Your task to perform on an android device: Do I have any events tomorrow? Image 0: 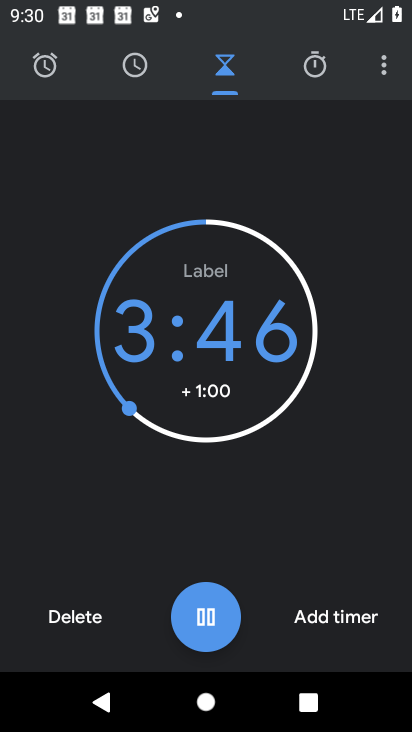
Step 0: press home button
Your task to perform on an android device: Do I have any events tomorrow? Image 1: 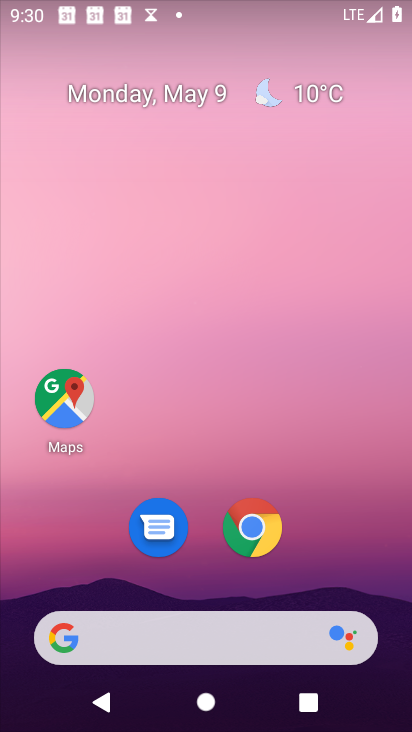
Step 1: drag from (214, 576) to (323, 8)
Your task to perform on an android device: Do I have any events tomorrow? Image 2: 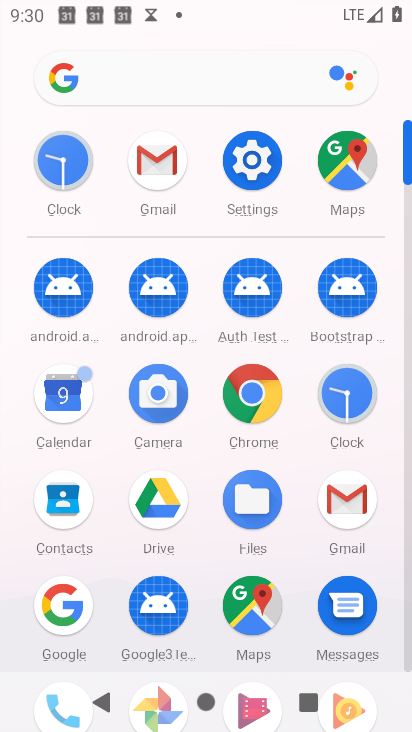
Step 2: click (71, 395)
Your task to perform on an android device: Do I have any events tomorrow? Image 3: 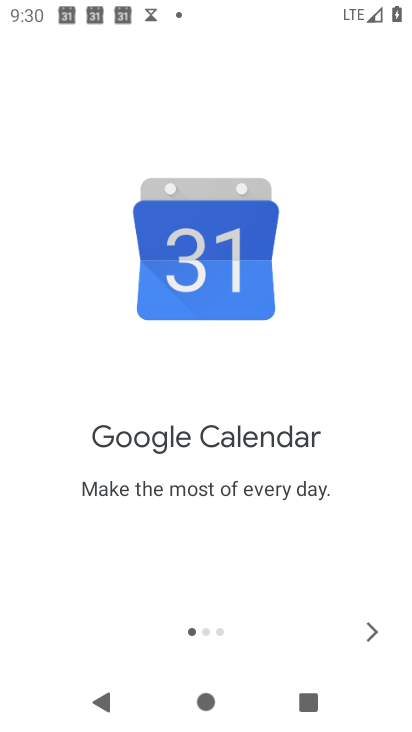
Step 3: click (364, 645)
Your task to perform on an android device: Do I have any events tomorrow? Image 4: 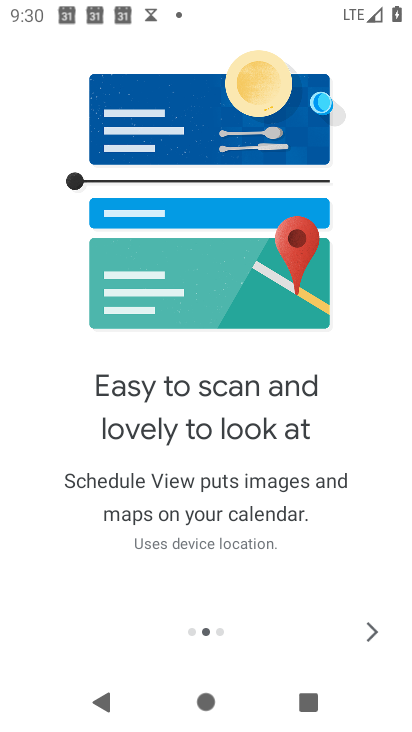
Step 4: click (364, 645)
Your task to perform on an android device: Do I have any events tomorrow? Image 5: 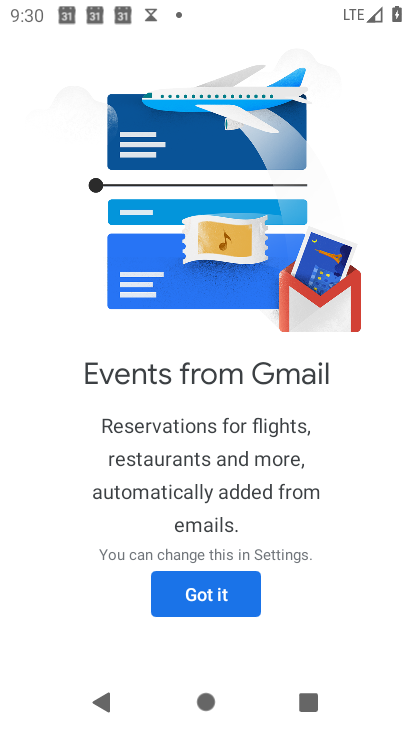
Step 5: click (179, 574)
Your task to perform on an android device: Do I have any events tomorrow? Image 6: 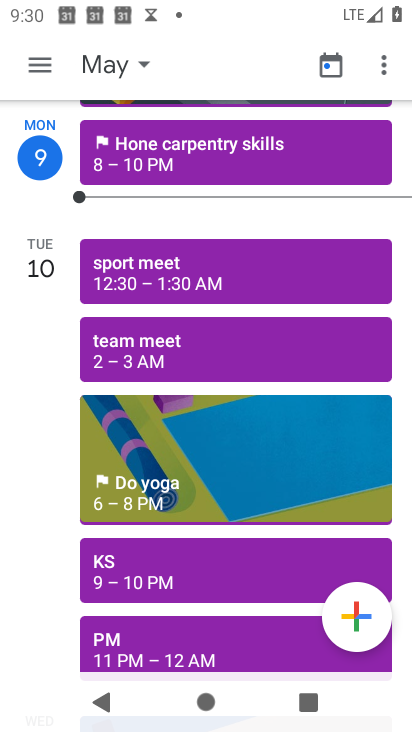
Step 6: click (42, 71)
Your task to perform on an android device: Do I have any events tomorrow? Image 7: 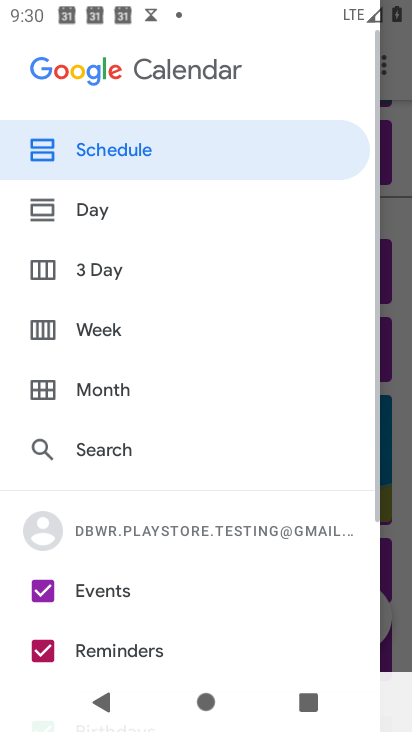
Step 7: click (106, 273)
Your task to perform on an android device: Do I have any events tomorrow? Image 8: 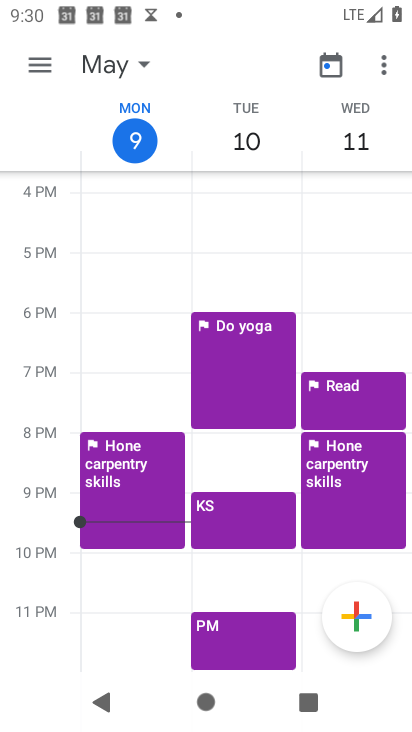
Step 8: click (39, 74)
Your task to perform on an android device: Do I have any events tomorrow? Image 9: 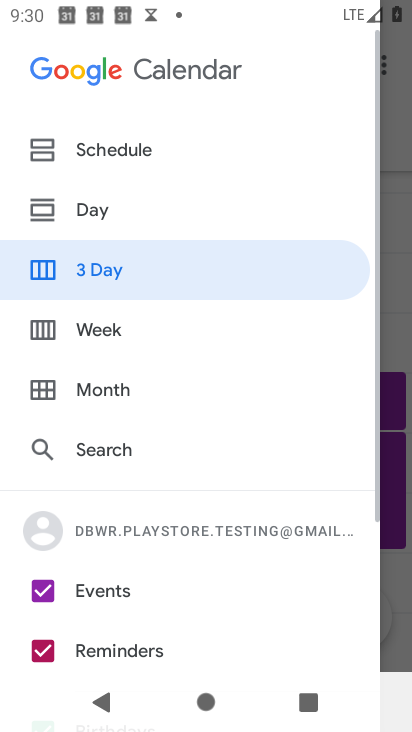
Step 9: drag from (99, 607) to (162, 255)
Your task to perform on an android device: Do I have any events tomorrow? Image 10: 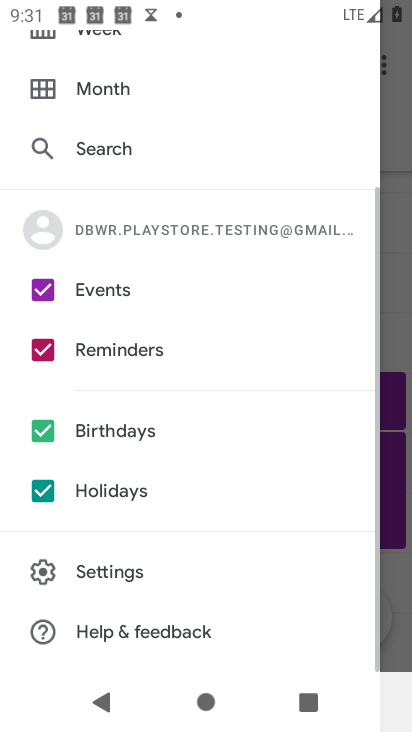
Step 10: click (113, 357)
Your task to perform on an android device: Do I have any events tomorrow? Image 11: 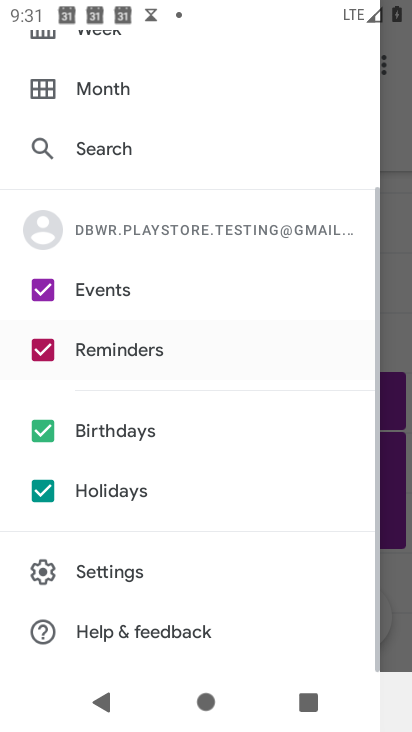
Step 11: click (113, 424)
Your task to perform on an android device: Do I have any events tomorrow? Image 12: 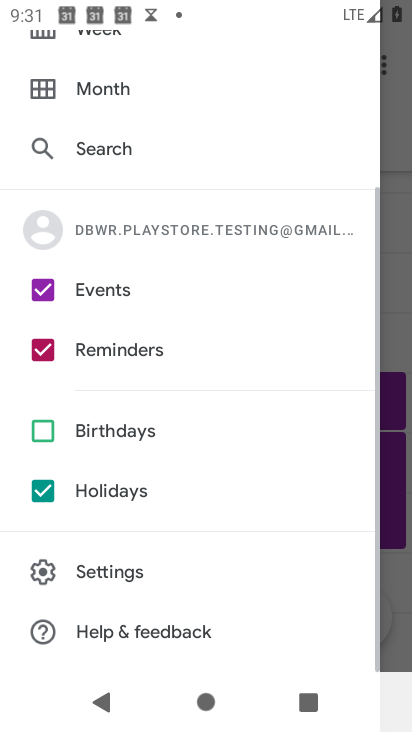
Step 12: click (107, 496)
Your task to perform on an android device: Do I have any events tomorrow? Image 13: 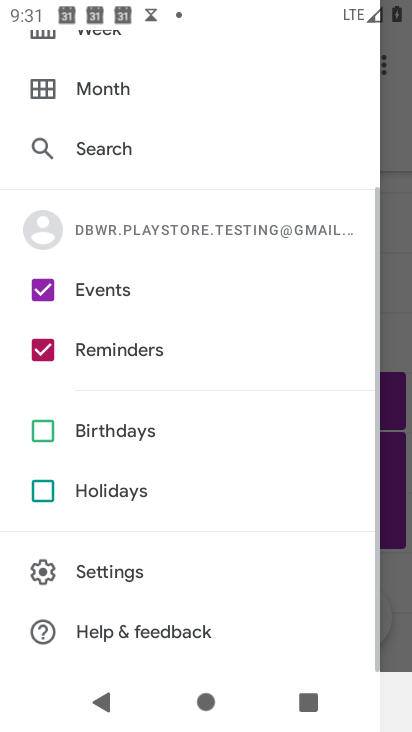
Step 13: click (90, 343)
Your task to perform on an android device: Do I have any events tomorrow? Image 14: 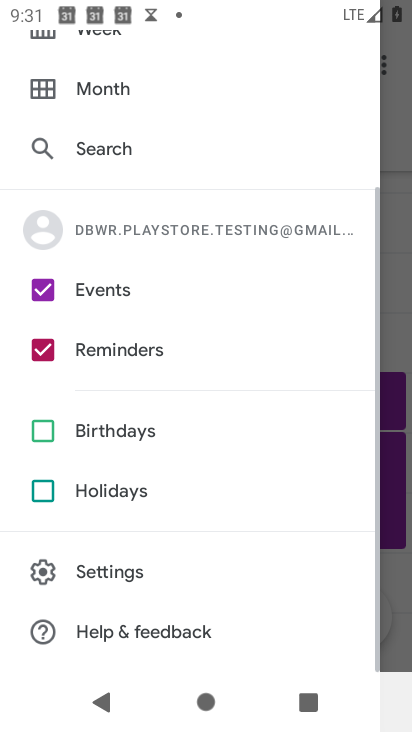
Step 14: drag from (154, 158) to (179, 319)
Your task to perform on an android device: Do I have any events tomorrow? Image 15: 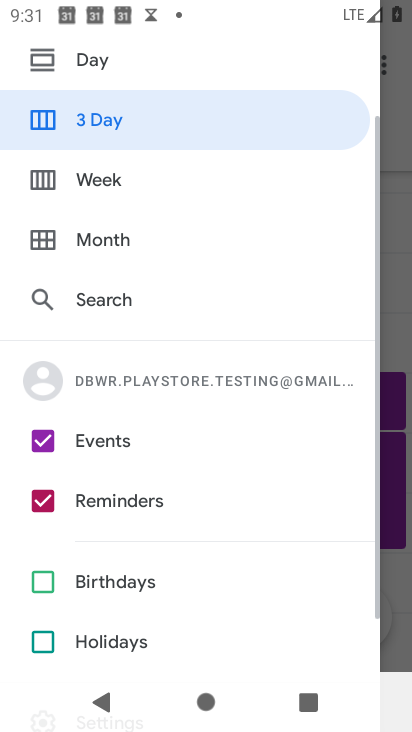
Step 15: click (34, 513)
Your task to perform on an android device: Do I have any events tomorrow? Image 16: 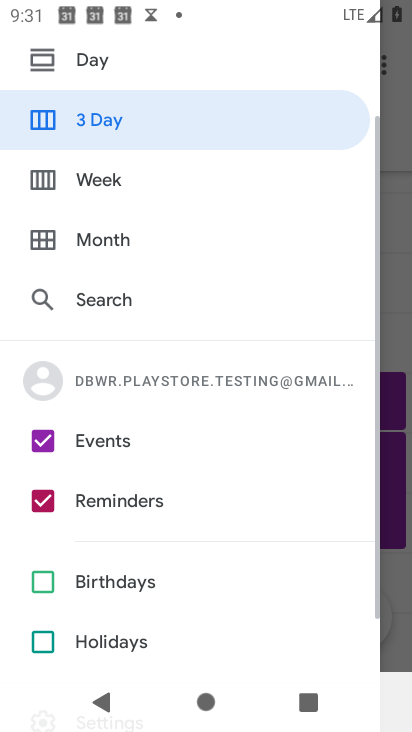
Step 16: click (48, 503)
Your task to perform on an android device: Do I have any events tomorrow? Image 17: 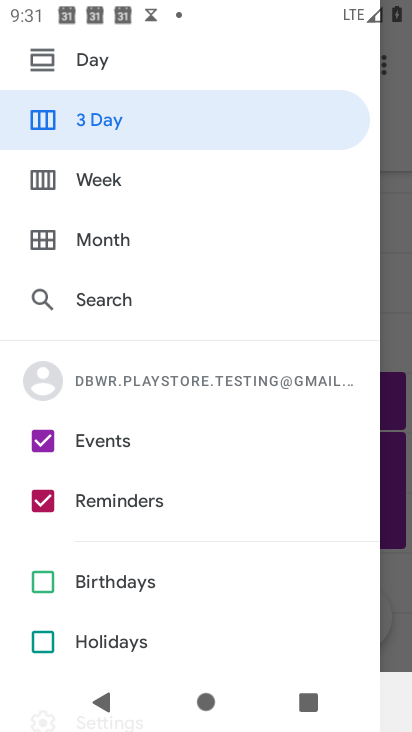
Step 17: click (155, 502)
Your task to perform on an android device: Do I have any events tomorrow? Image 18: 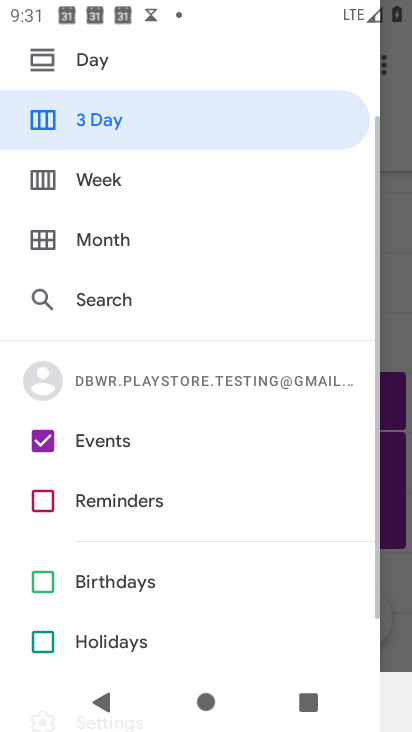
Step 18: drag from (245, 283) to (248, 520)
Your task to perform on an android device: Do I have any events tomorrow? Image 19: 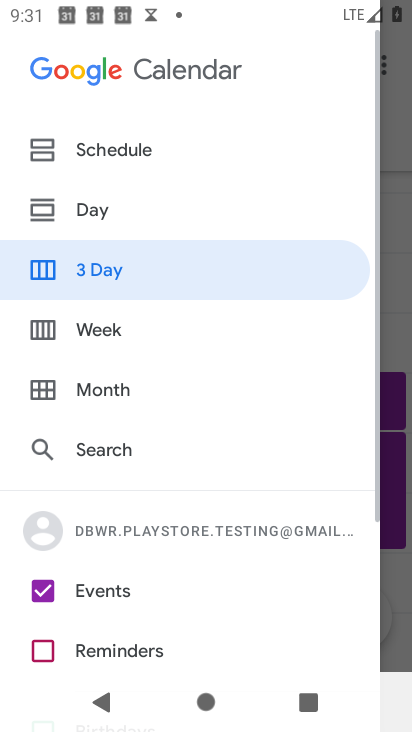
Step 19: click (129, 265)
Your task to perform on an android device: Do I have any events tomorrow? Image 20: 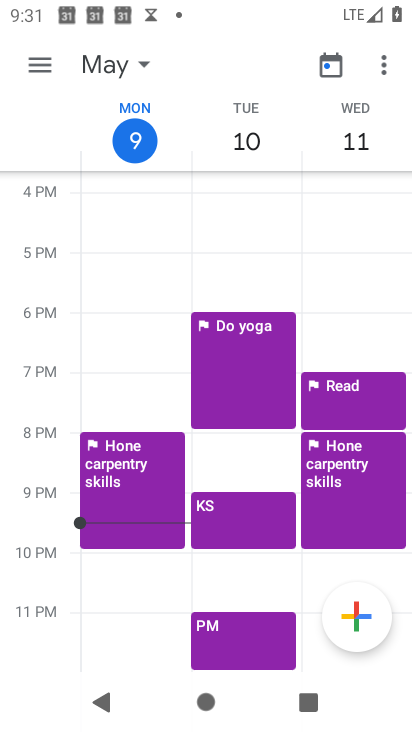
Step 20: task complete